Your task to perform on an android device: turn off smart reply in the gmail app Image 0: 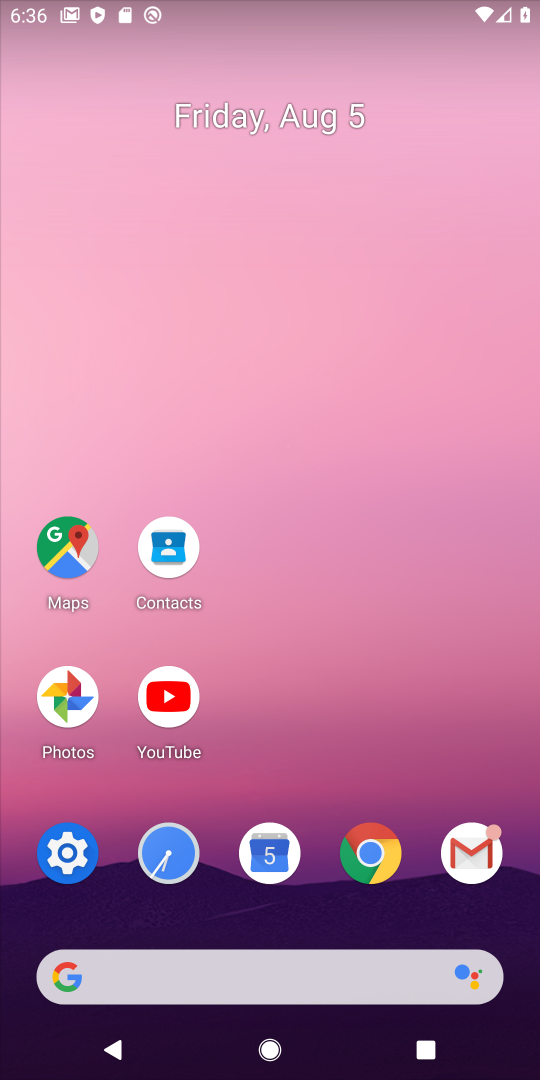
Step 0: click (471, 861)
Your task to perform on an android device: turn off smart reply in the gmail app Image 1: 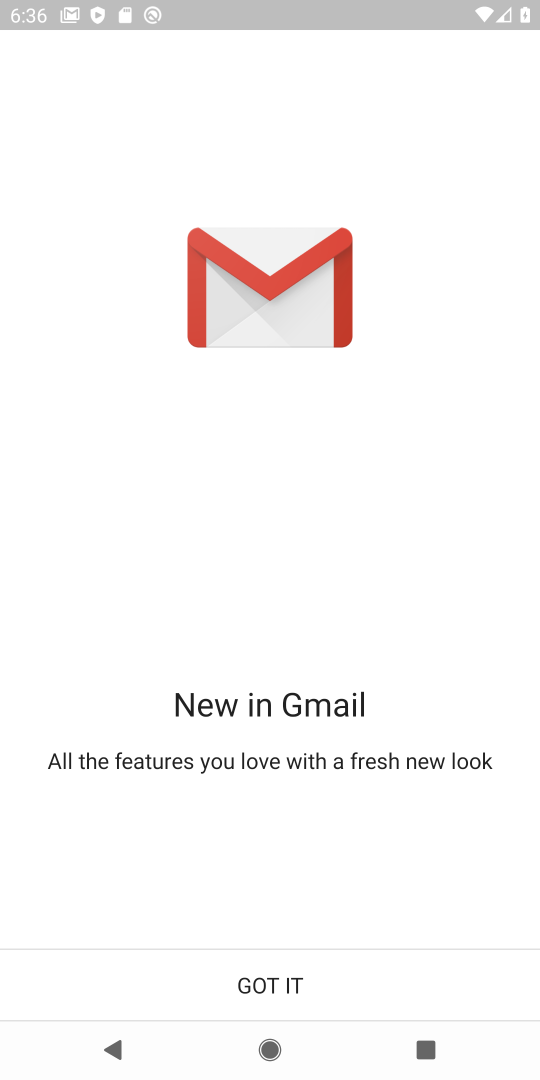
Step 1: click (268, 982)
Your task to perform on an android device: turn off smart reply in the gmail app Image 2: 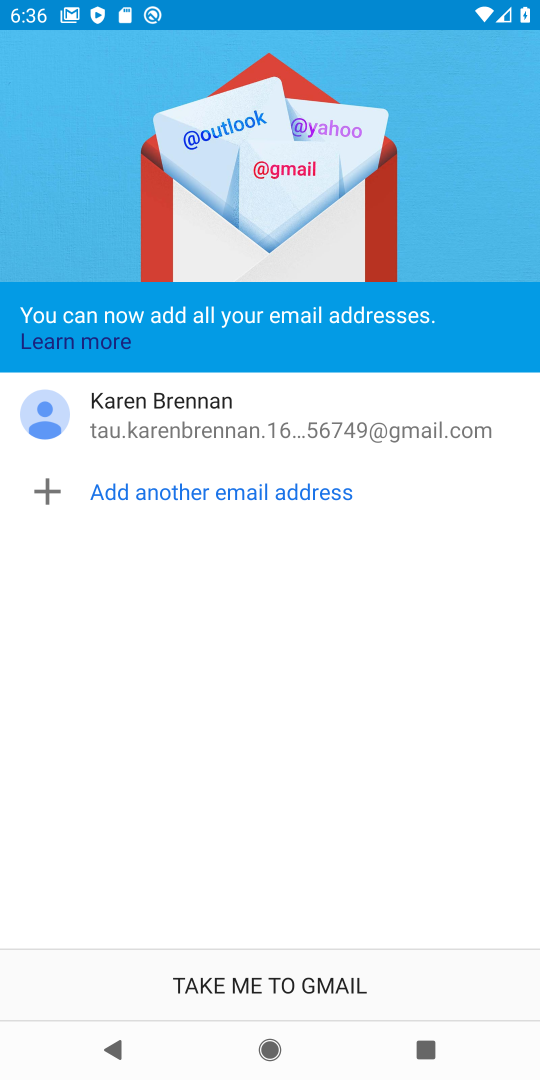
Step 2: click (276, 973)
Your task to perform on an android device: turn off smart reply in the gmail app Image 3: 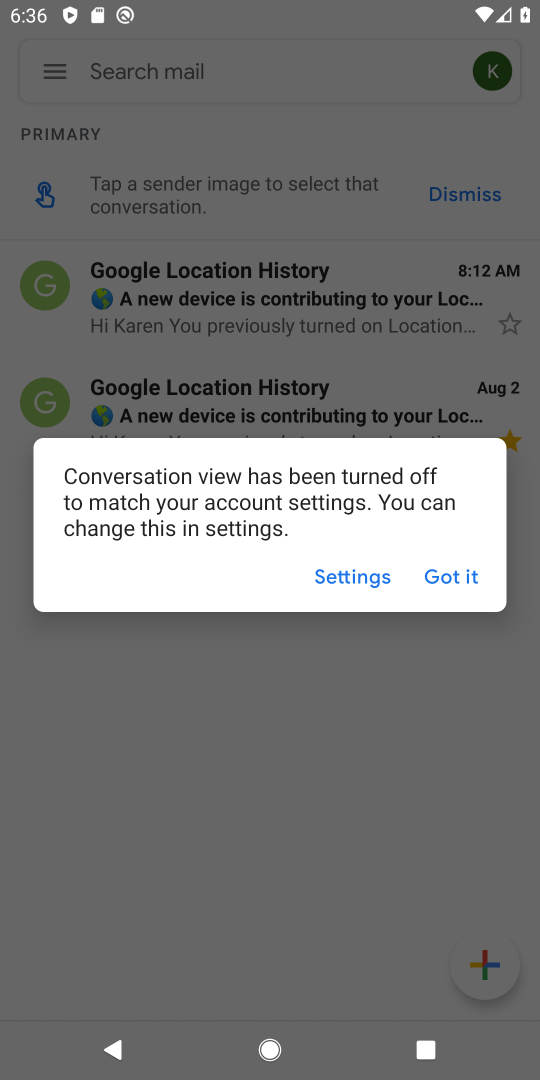
Step 3: click (442, 575)
Your task to perform on an android device: turn off smart reply in the gmail app Image 4: 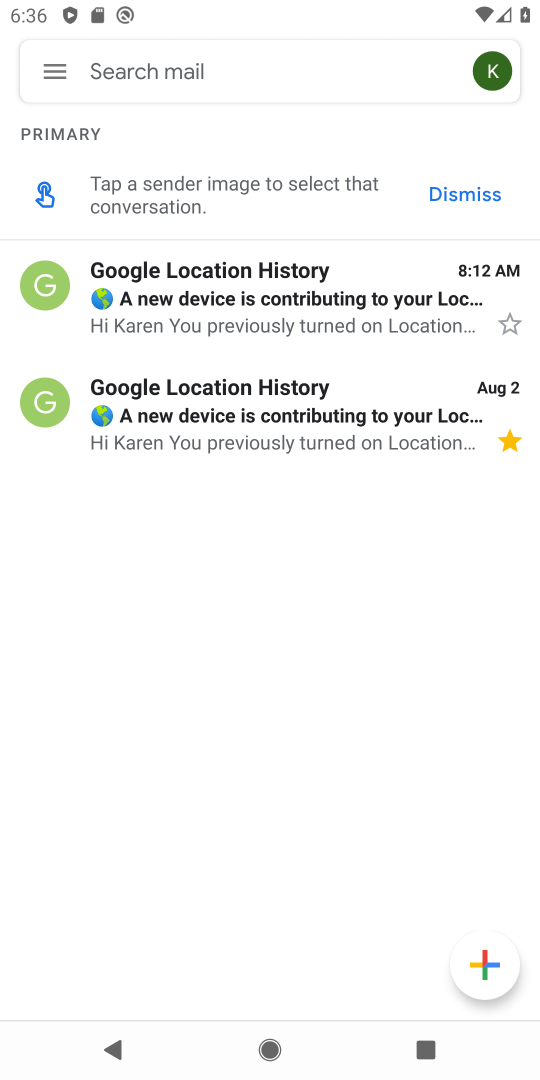
Step 4: click (49, 54)
Your task to perform on an android device: turn off smart reply in the gmail app Image 5: 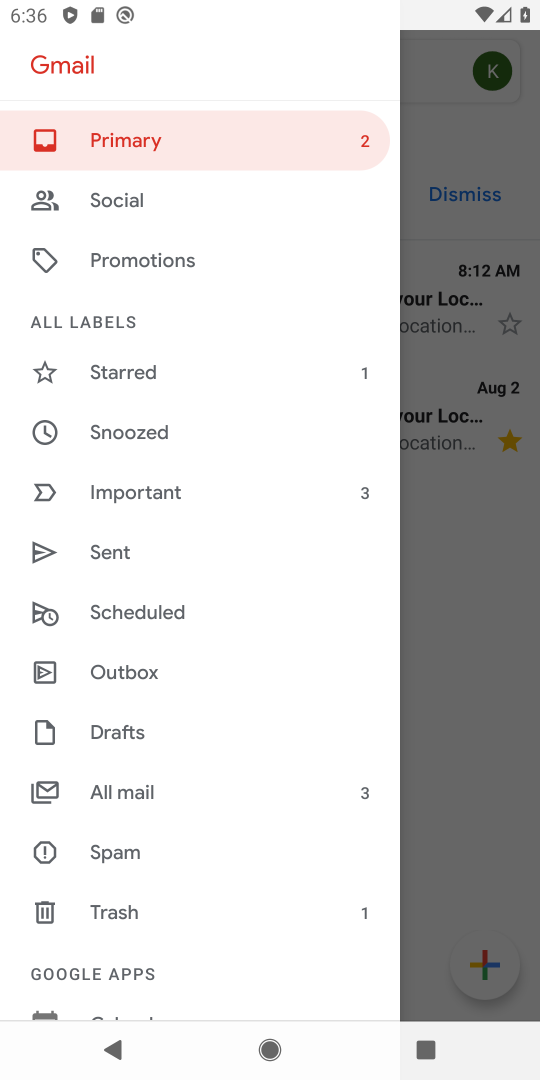
Step 5: drag from (249, 939) to (282, 520)
Your task to perform on an android device: turn off smart reply in the gmail app Image 6: 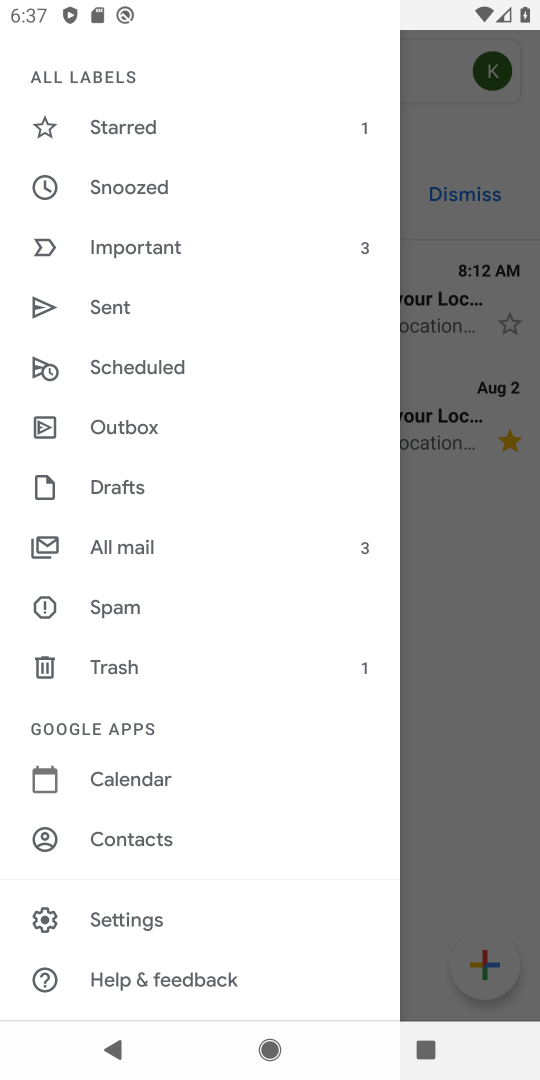
Step 6: click (126, 915)
Your task to perform on an android device: turn off smart reply in the gmail app Image 7: 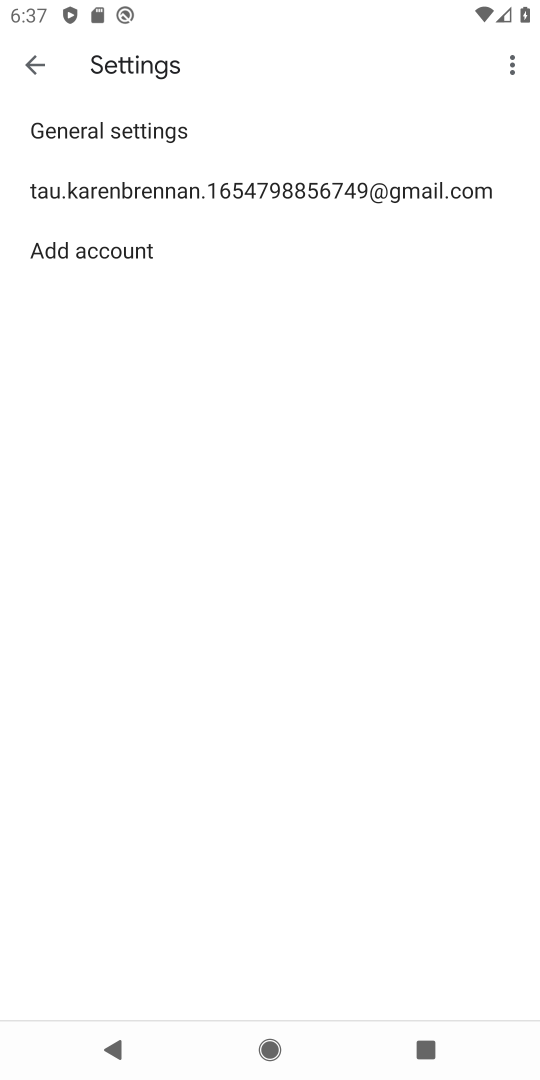
Step 7: click (139, 181)
Your task to perform on an android device: turn off smart reply in the gmail app Image 8: 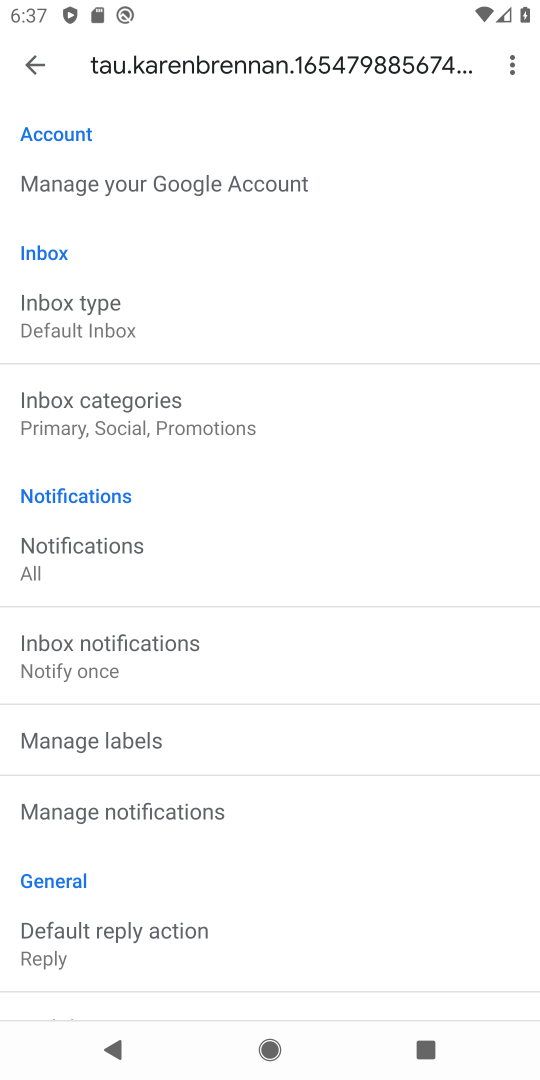
Step 8: drag from (251, 872) to (331, 240)
Your task to perform on an android device: turn off smart reply in the gmail app Image 9: 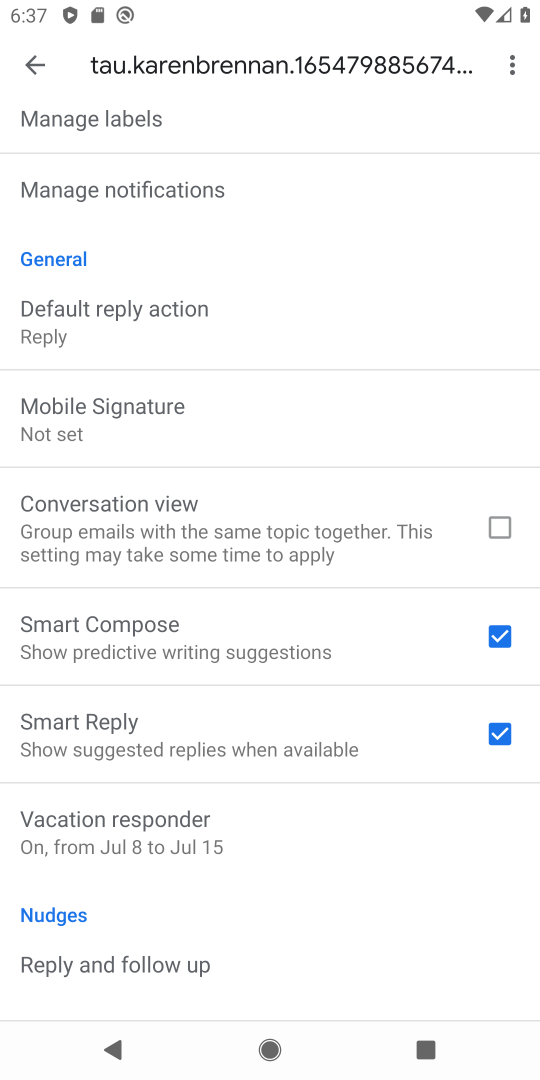
Step 9: click (504, 734)
Your task to perform on an android device: turn off smart reply in the gmail app Image 10: 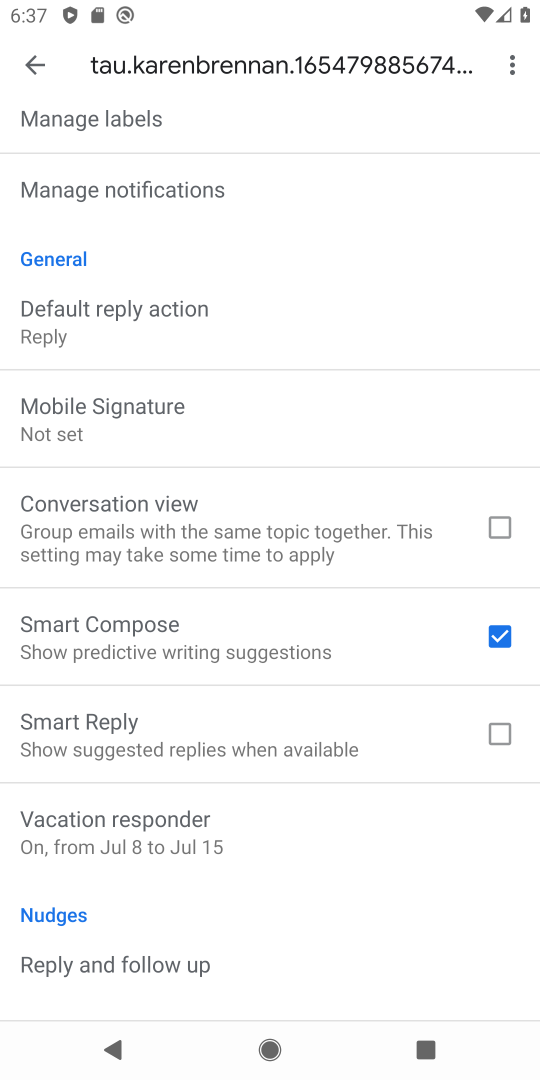
Step 10: task complete